Your task to perform on an android device: set the stopwatch Image 0: 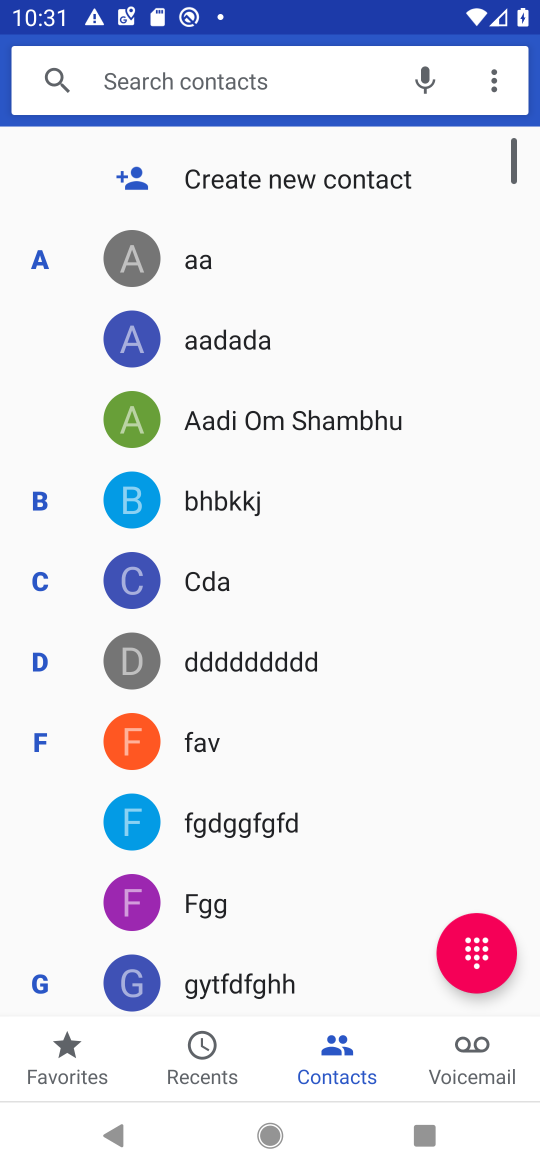
Step 0: press home button
Your task to perform on an android device: set the stopwatch Image 1: 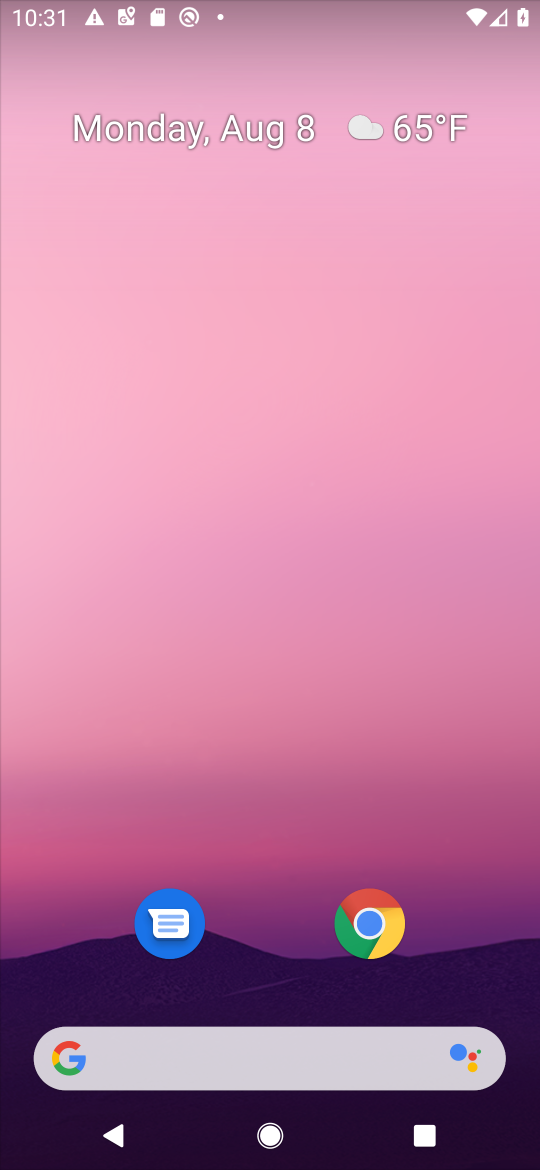
Step 1: task complete